Your task to perform on an android device: Go to battery settings Image 0: 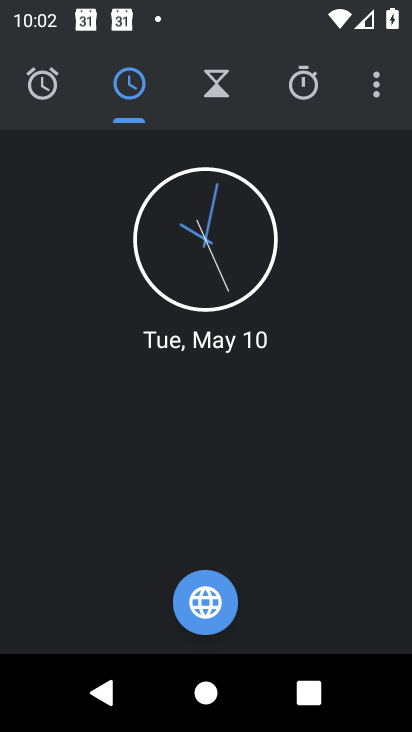
Step 0: press home button
Your task to perform on an android device: Go to battery settings Image 1: 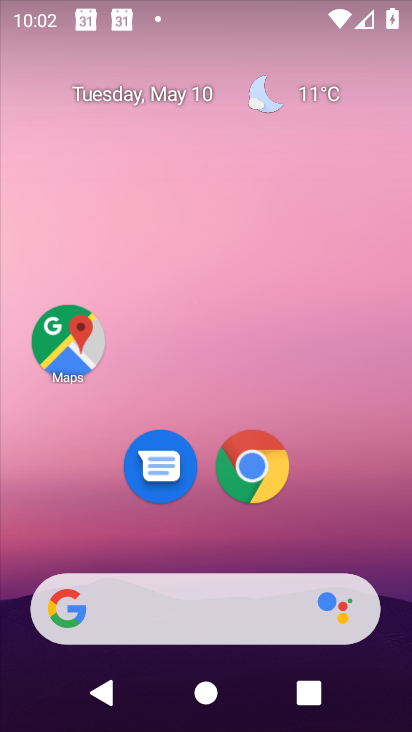
Step 1: drag from (330, 520) to (290, 146)
Your task to perform on an android device: Go to battery settings Image 2: 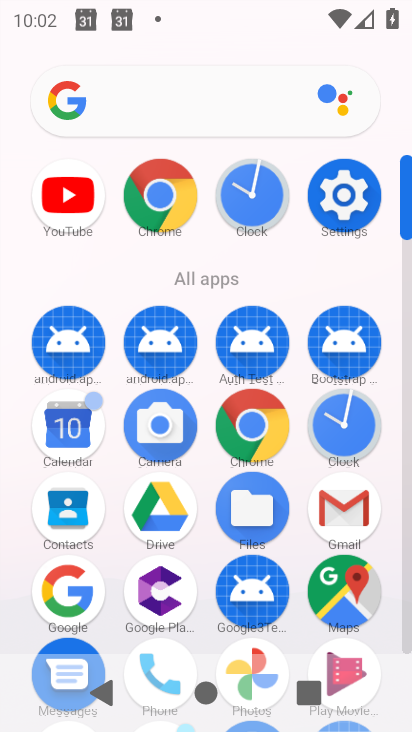
Step 2: click (341, 180)
Your task to perform on an android device: Go to battery settings Image 3: 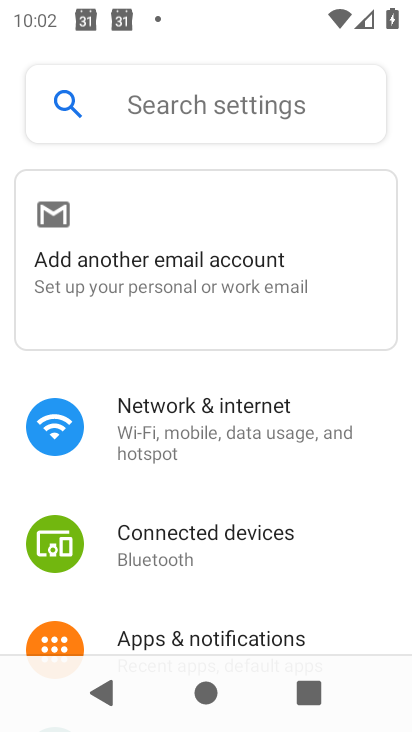
Step 3: drag from (298, 569) to (245, 103)
Your task to perform on an android device: Go to battery settings Image 4: 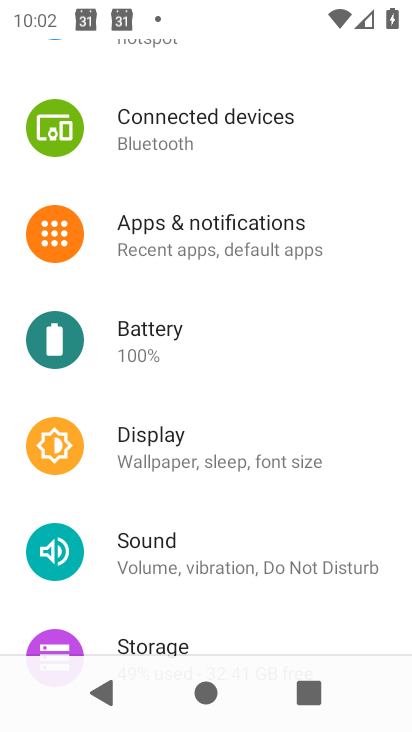
Step 4: click (185, 326)
Your task to perform on an android device: Go to battery settings Image 5: 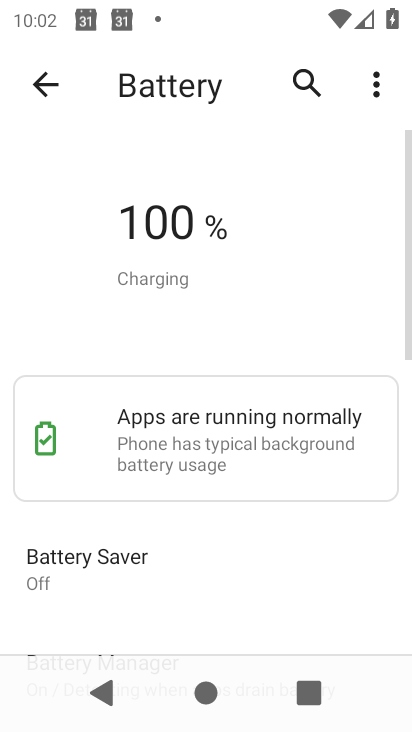
Step 5: task complete